Your task to perform on an android device: Go to display settings Image 0: 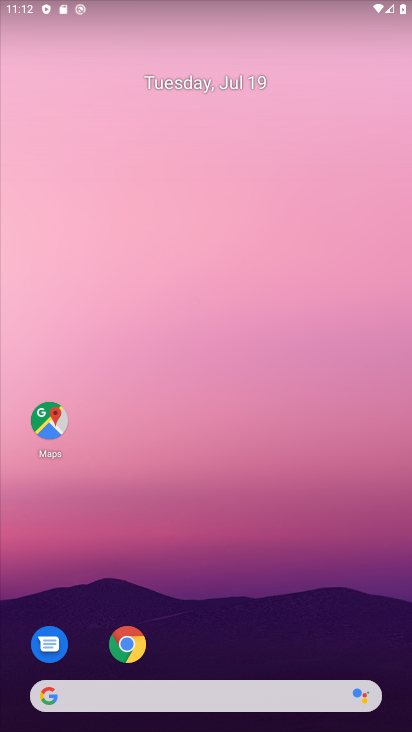
Step 0: drag from (232, 644) to (211, 110)
Your task to perform on an android device: Go to display settings Image 1: 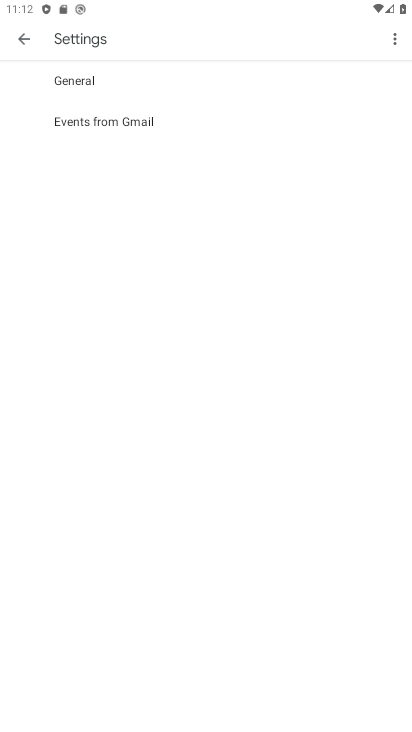
Step 1: press home button
Your task to perform on an android device: Go to display settings Image 2: 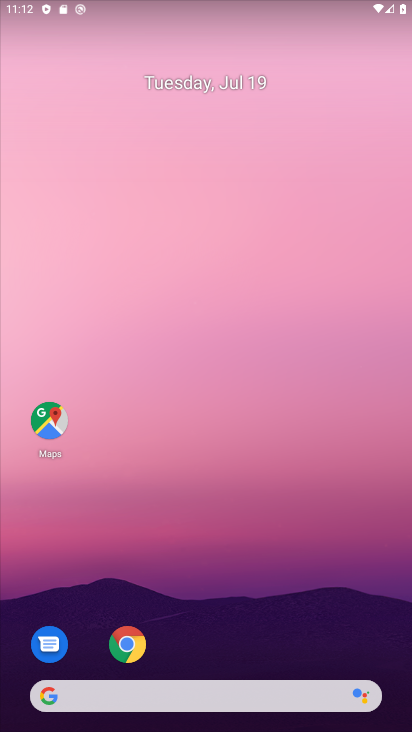
Step 2: drag from (222, 652) to (229, 91)
Your task to perform on an android device: Go to display settings Image 3: 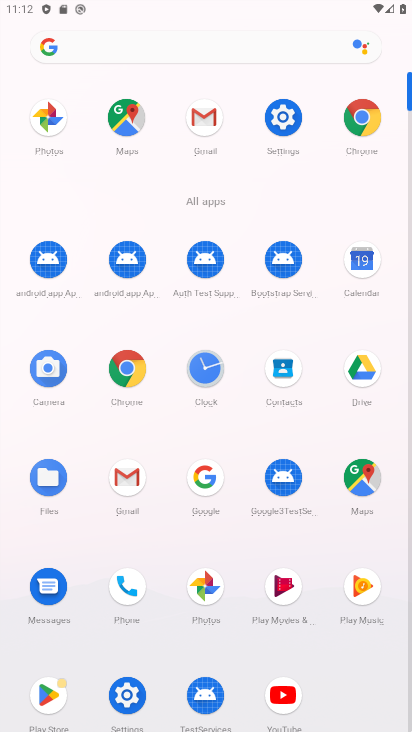
Step 3: click (289, 112)
Your task to perform on an android device: Go to display settings Image 4: 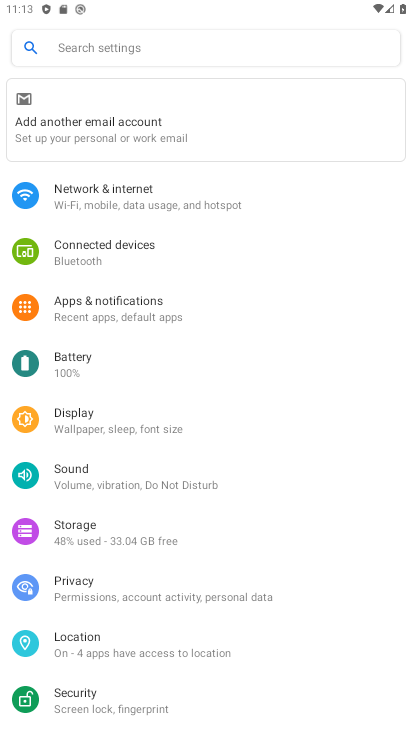
Step 4: click (144, 429)
Your task to perform on an android device: Go to display settings Image 5: 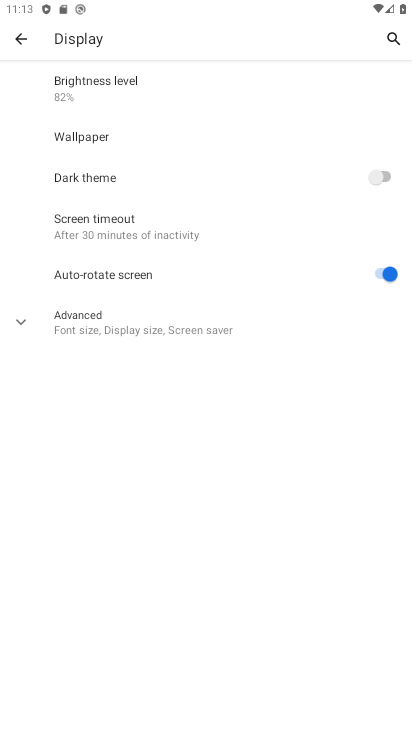
Step 5: task complete